Your task to perform on an android device: Show me popular games on the Play Store Image 0: 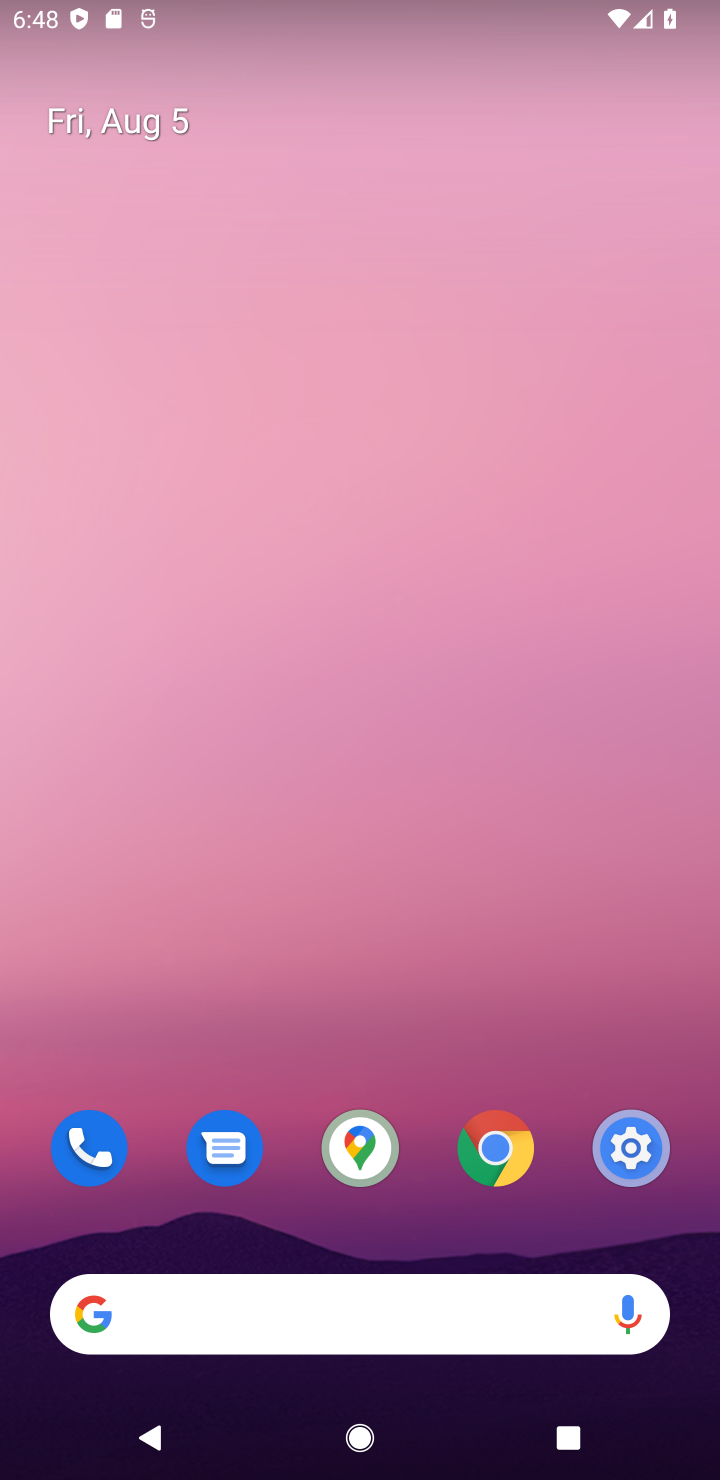
Step 0: drag from (449, 711) to (455, 255)
Your task to perform on an android device: Show me popular games on the Play Store Image 1: 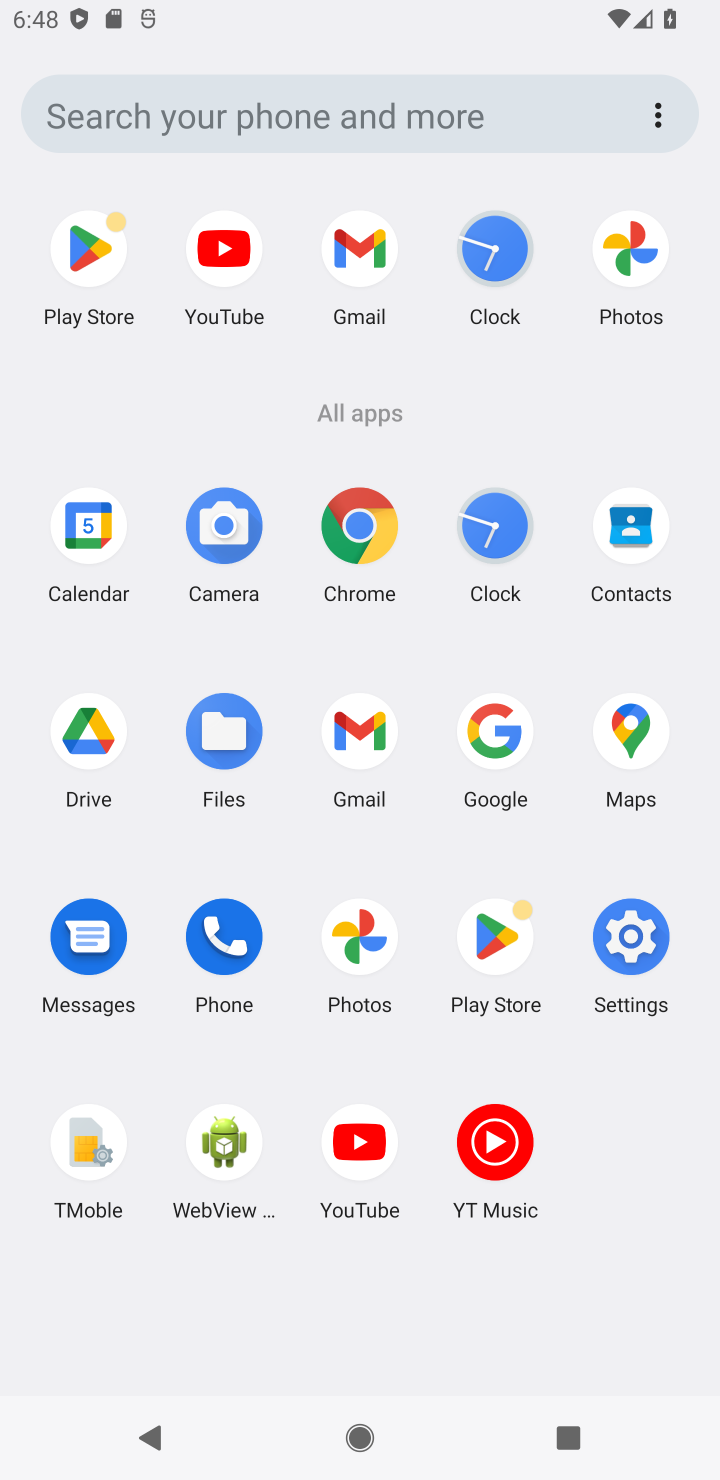
Step 1: click (487, 994)
Your task to perform on an android device: Show me popular games on the Play Store Image 2: 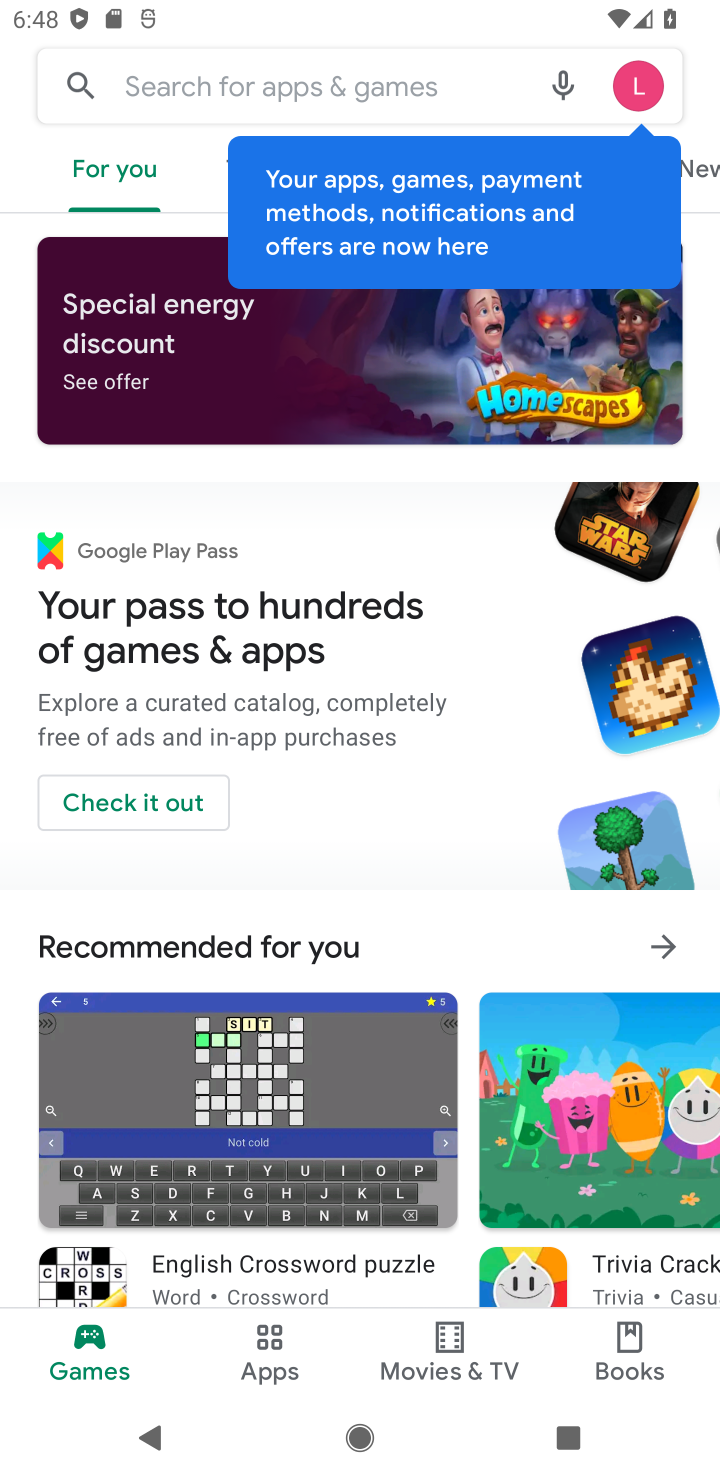
Step 2: task complete